Your task to perform on an android device: What's the weather? Image 0: 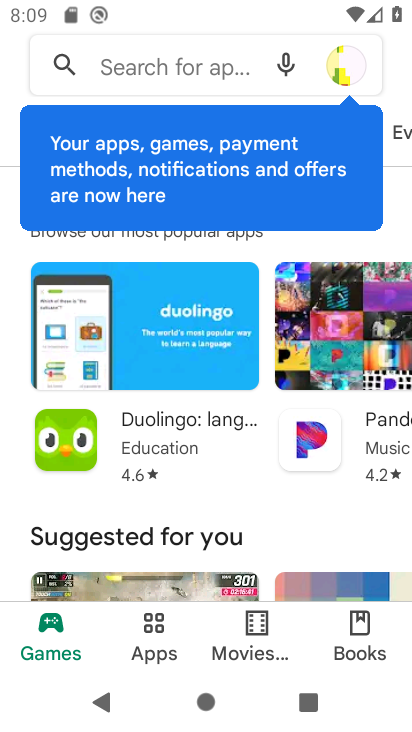
Step 0: press home button
Your task to perform on an android device: What's the weather? Image 1: 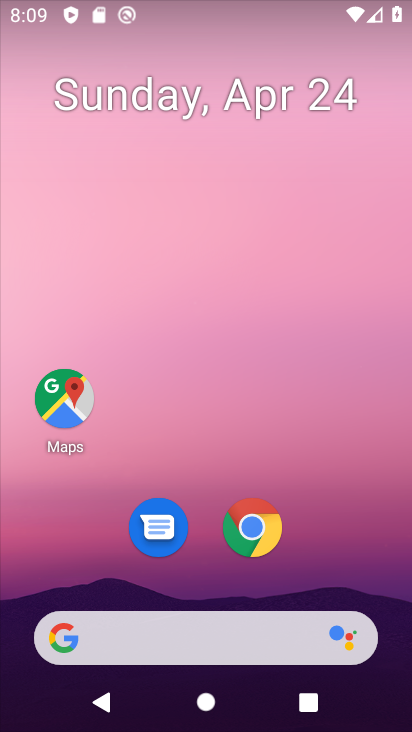
Step 1: drag from (327, 581) to (282, 456)
Your task to perform on an android device: What's the weather? Image 2: 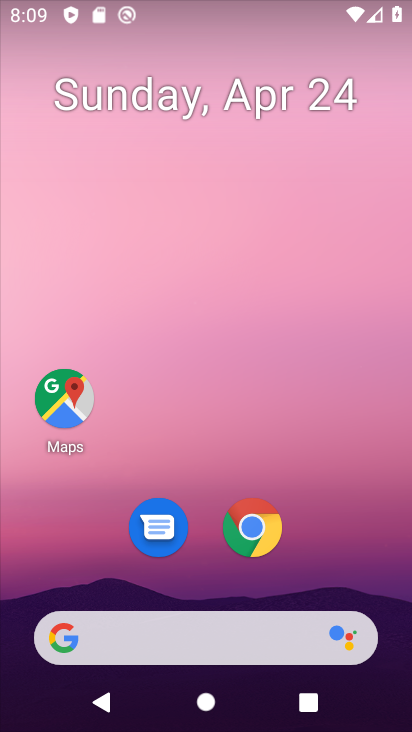
Step 2: click (191, 651)
Your task to perform on an android device: What's the weather? Image 3: 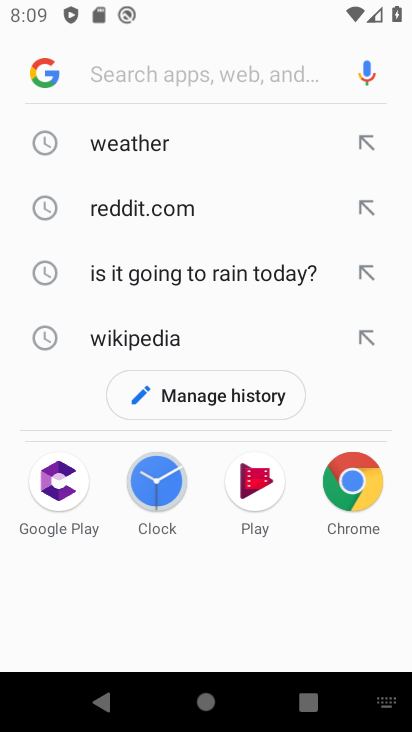
Step 3: click (178, 147)
Your task to perform on an android device: What's the weather? Image 4: 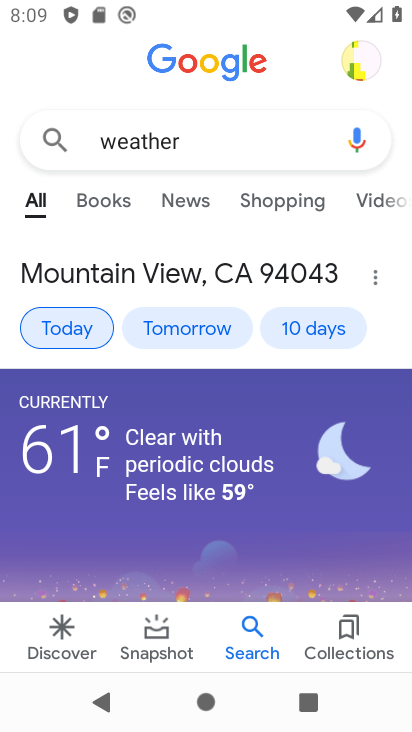
Step 4: task complete